Your task to perform on an android device: Is it going to rain tomorrow? Image 0: 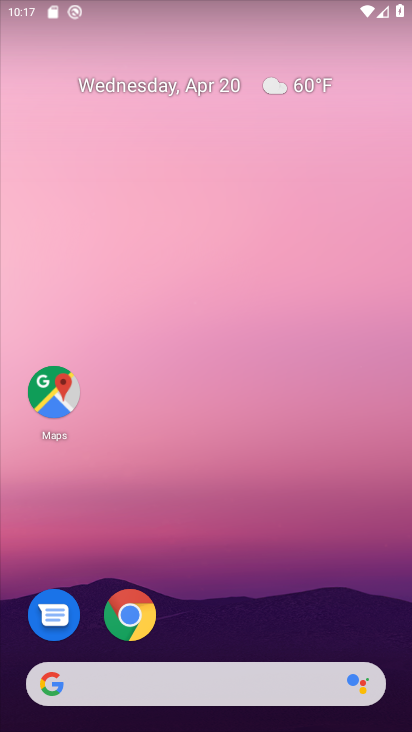
Step 0: drag from (360, 605) to (360, 214)
Your task to perform on an android device: Is it going to rain tomorrow? Image 1: 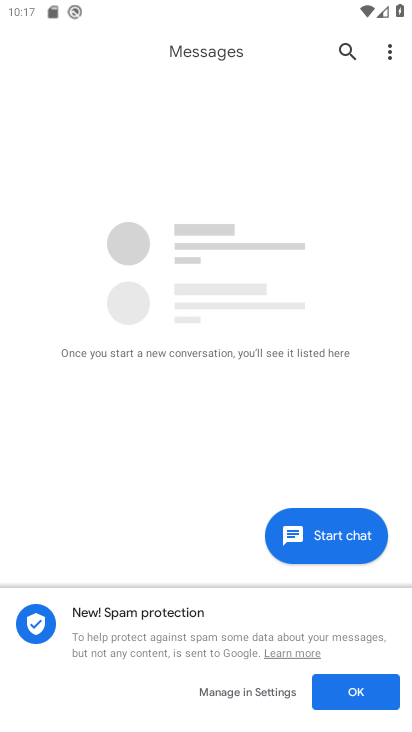
Step 1: press home button
Your task to perform on an android device: Is it going to rain tomorrow? Image 2: 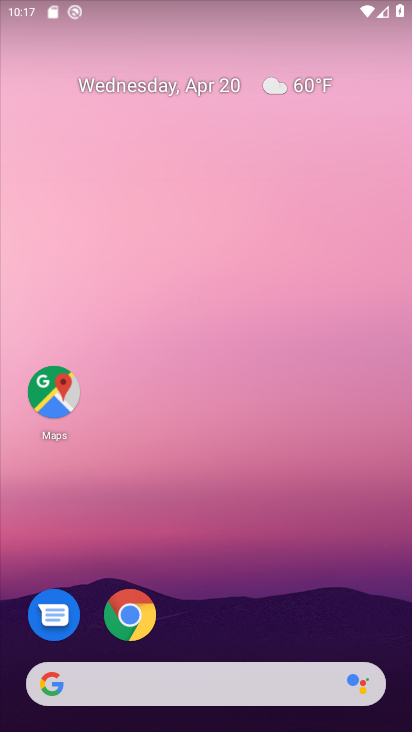
Step 2: drag from (364, 505) to (365, 183)
Your task to perform on an android device: Is it going to rain tomorrow? Image 3: 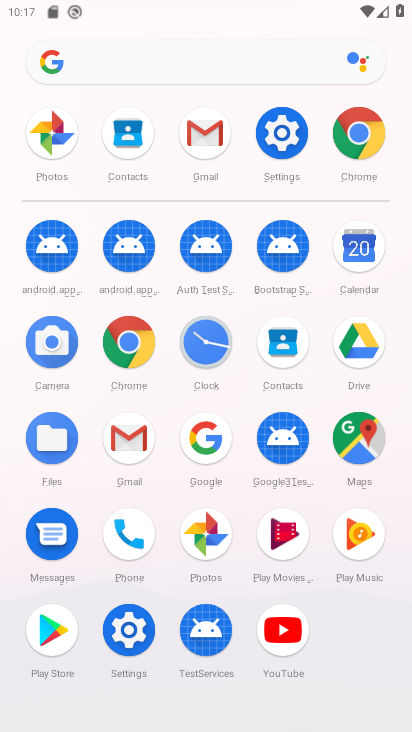
Step 3: click (144, 356)
Your task to perform on an android device: Is it going to rain tomorrow? Image 4: 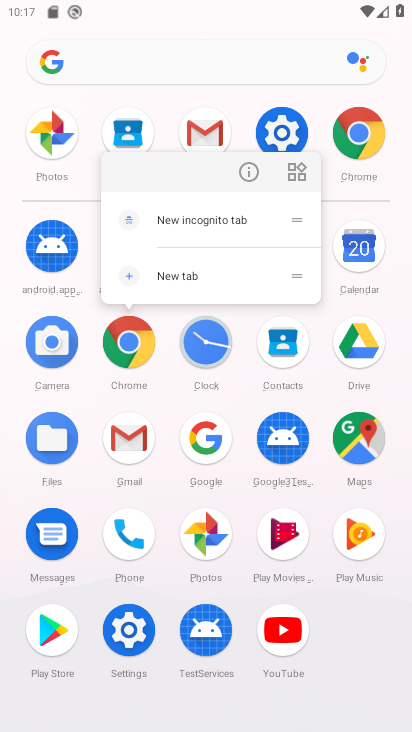
Step 4: click (140, 356)
Your task to perform on an android device: Is it going to rain tomorrow? Image 5: 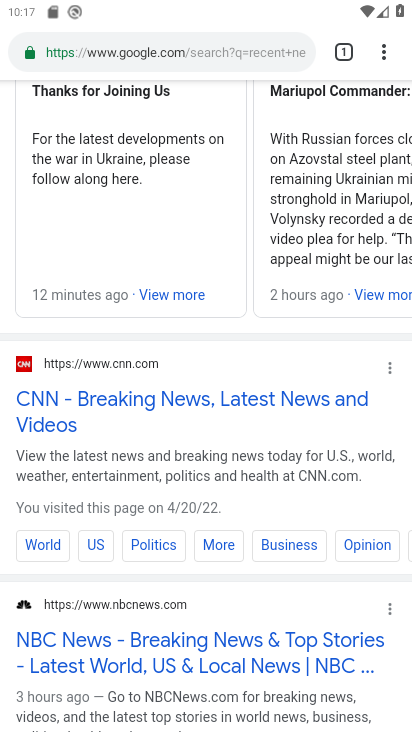
Step 5: click (208, 57)
Your task to perform on an android device: Is it going to rain tomorrow? Image 6: 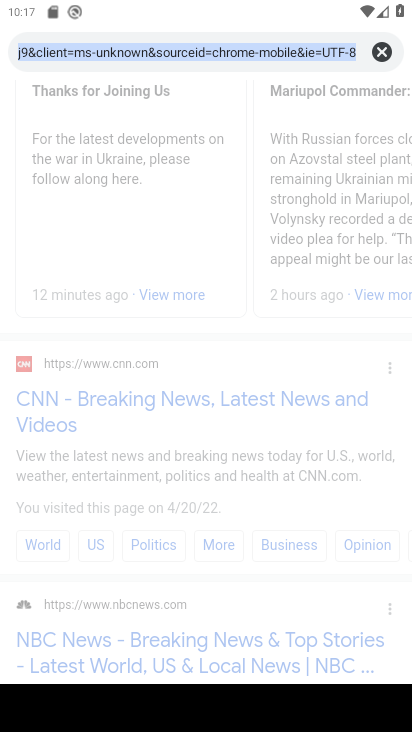
Step 6: click (391, 56)
Your task to perform on an android device: Is it going to rain tomorrow? Image 7: 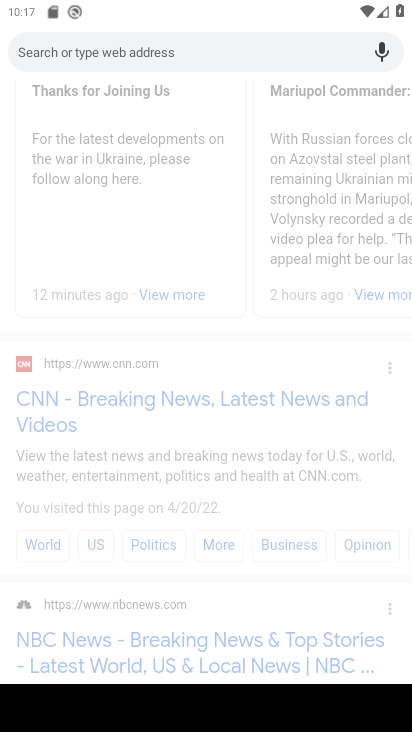
Step 7: type "is it going to rain tomorrow"
Your task to perform on an android device: Is it going to rain tomorrow? Image 8: 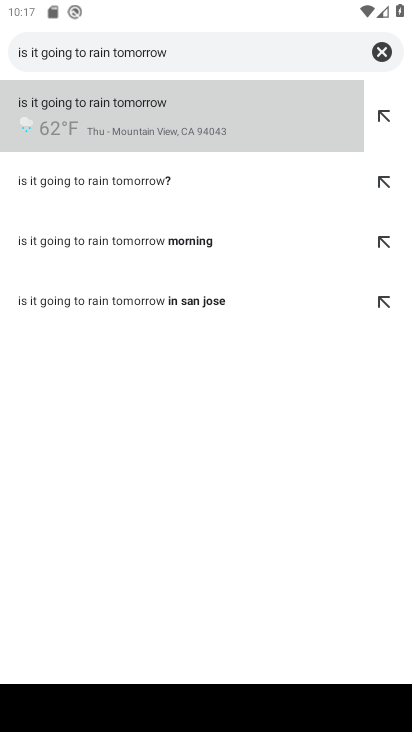
Step 8: click (136, 123)
Your task to perform on an android device: Is it going to rain tomorrow? Image 9: 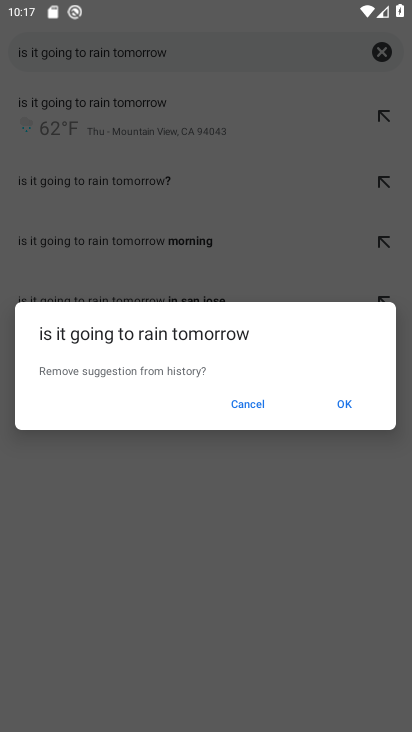
Step 9: click (159, 124)
Your task to perform on an android device: Is it going to rain tomorrow? Image 10: 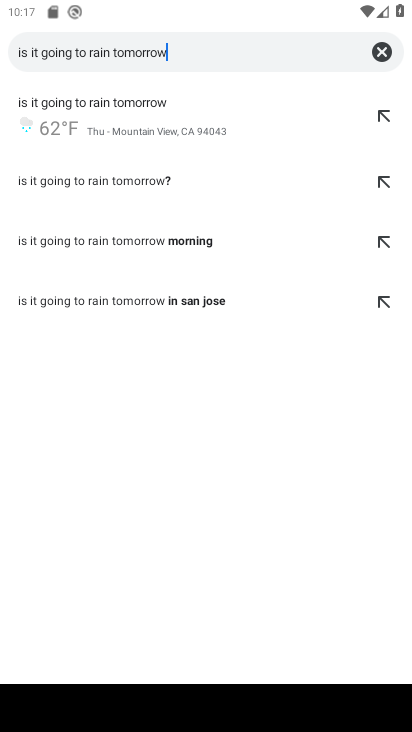
Step 10: click (239, 409)
Your task to perform on an android device: Is it going to rain tomorrow? Image 11: 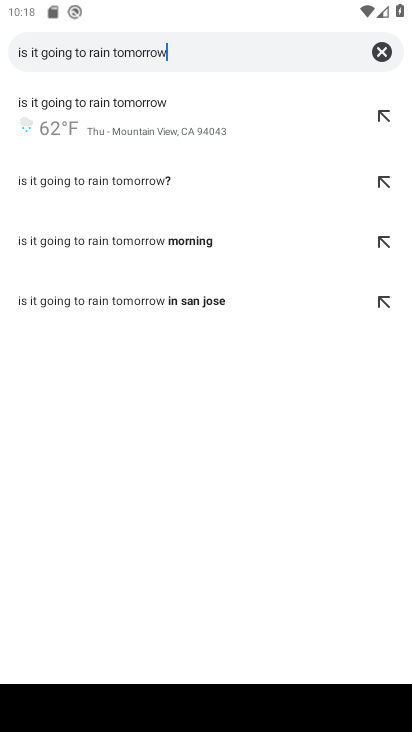
Step 11: click (159, 133)
Your task to perform on an android device: Is it going to rain tomorrow? Image 12: 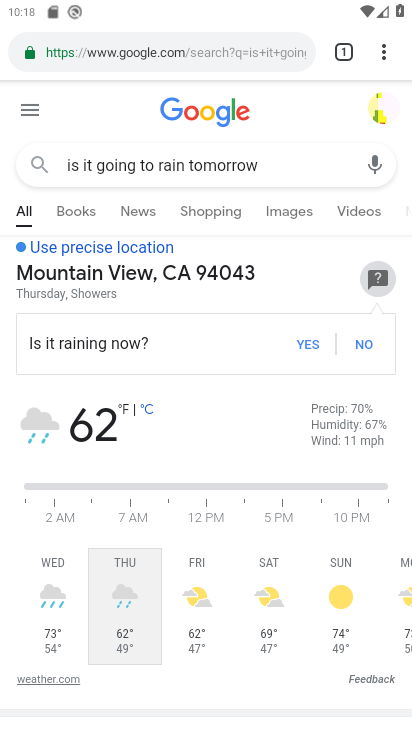
Step 12: task complete